Your task to perform on an android device: open chrome privacy settings Image 0: 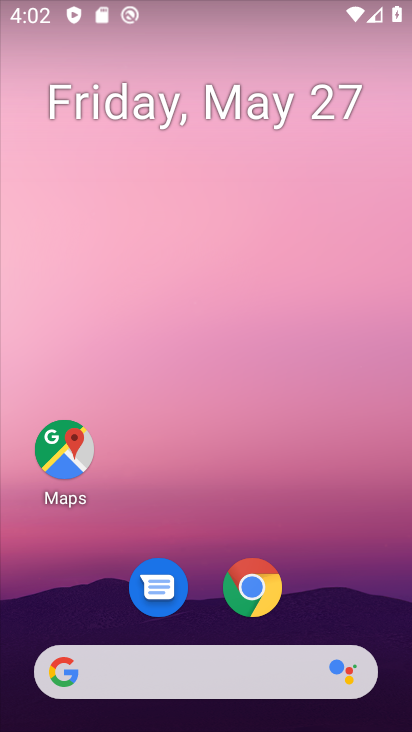
Step 0: drag from (306, 548) to (169, 50)
Your task to perform on an android device: open chrome privacy settings Image 1: 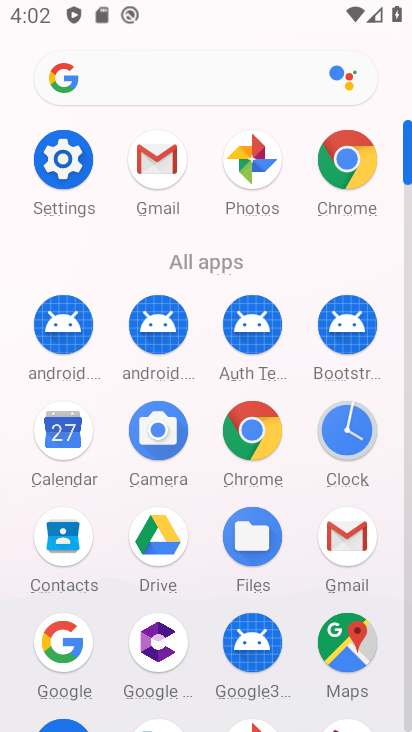
Step 1: click (352, 159)
Your task to perform on an android device: open chrome privacy settings Image 2: 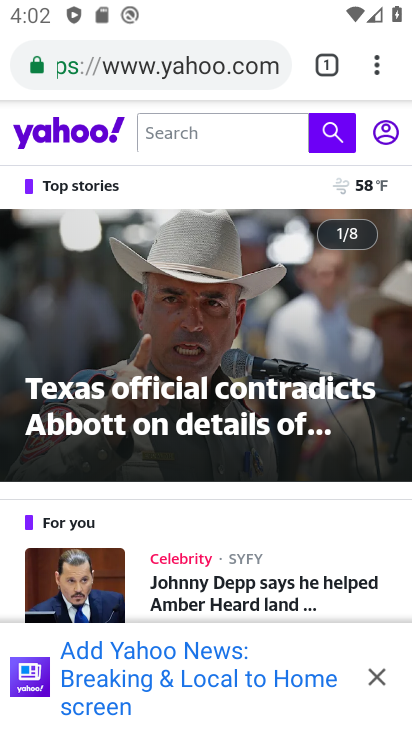
Step 2: drag from (371, 60) to (171, 636)
Your task to perform on an android device: open chrome privacy settings Image 3: 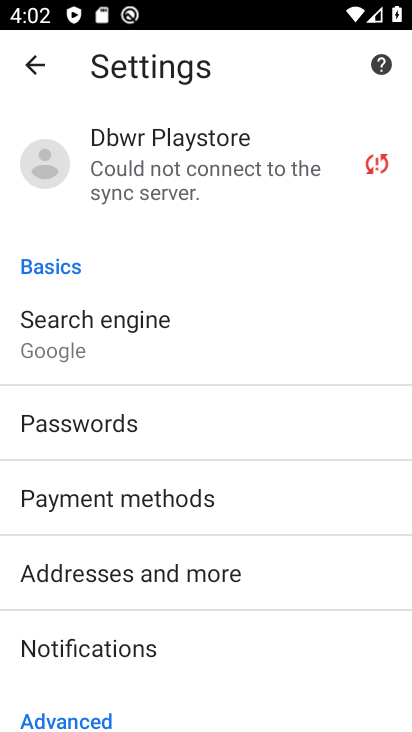
Step 3: drag from (239, 613) to (214, 287)
Your task to perform on an android device: open chrome privacy settings Image 4: 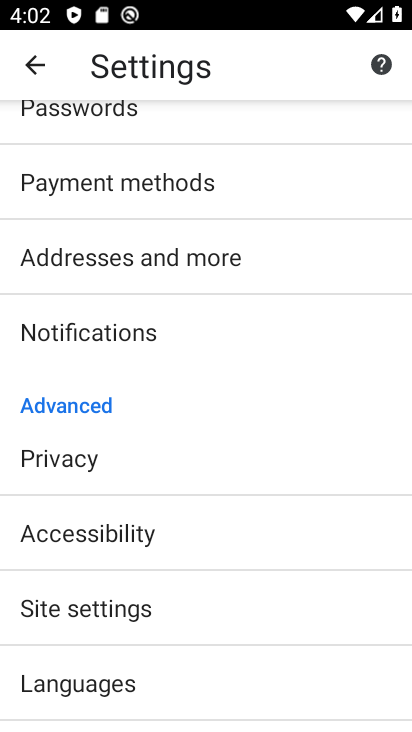
Step 4: click (96, 472)
Your task to perform on an android device: open chrome privacy settings Image 5: 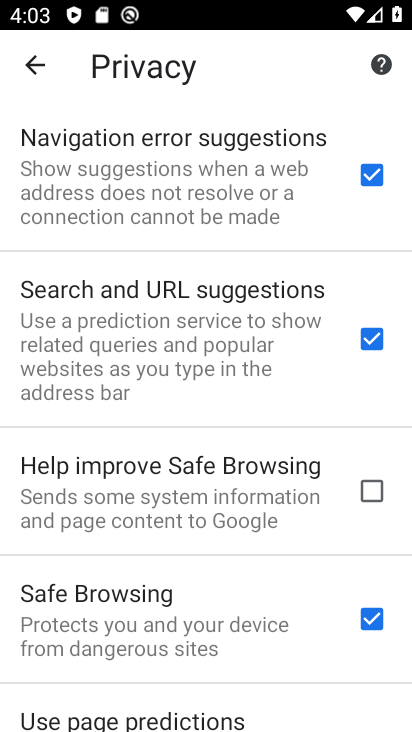
Step 5: task complete